Your task to perform on an android device: Open the phone app and click the voicemail tab. Image 0: 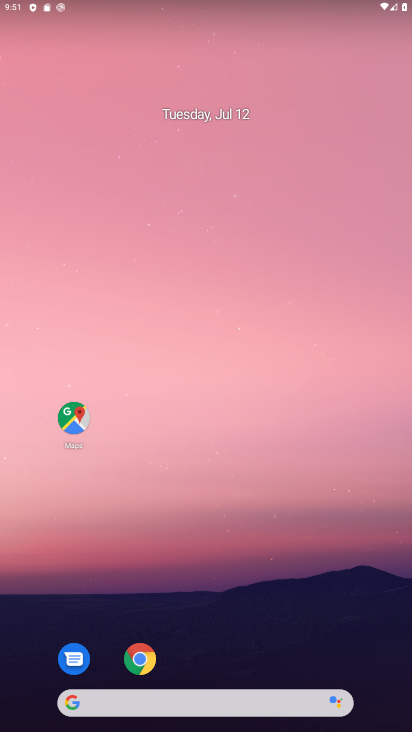
Step 0: drag from (382, 546) to (325, 39)
Your task to perform on an android device: Open the phone app and click the voicemail tab. Image 1: 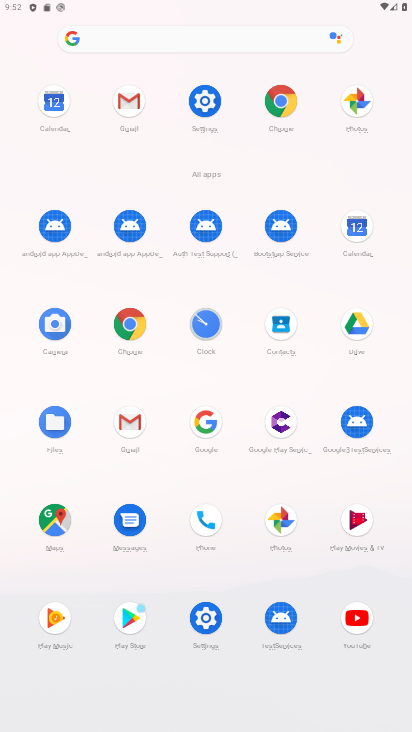
Step 1: click (201, 516)
Your task to perform on an android device: Open the phone app and click the voicemail tab. Image 2: 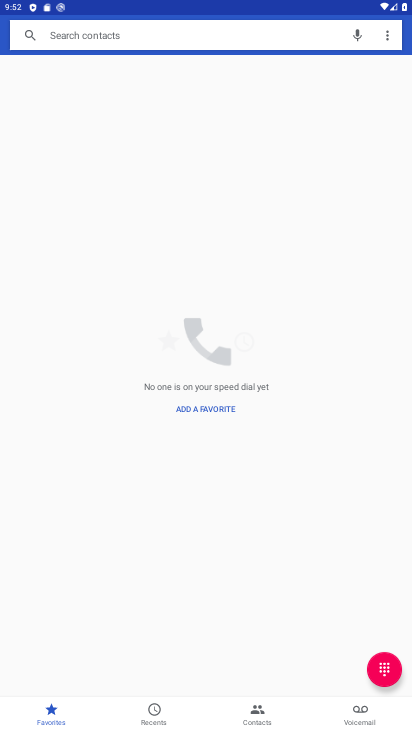
Step 2: click (364, 705)
Your task to perform on an android device: Open the phone app and click the voicemail tab. Image 3: 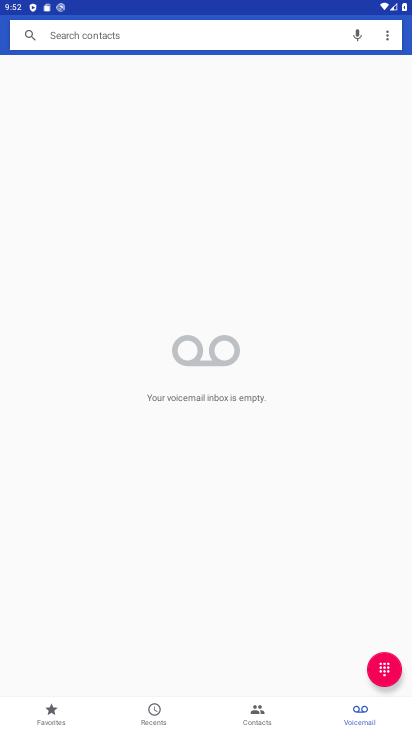
Step 3: task complete